Your task to perform on an android device: Open notification settings Image 0: 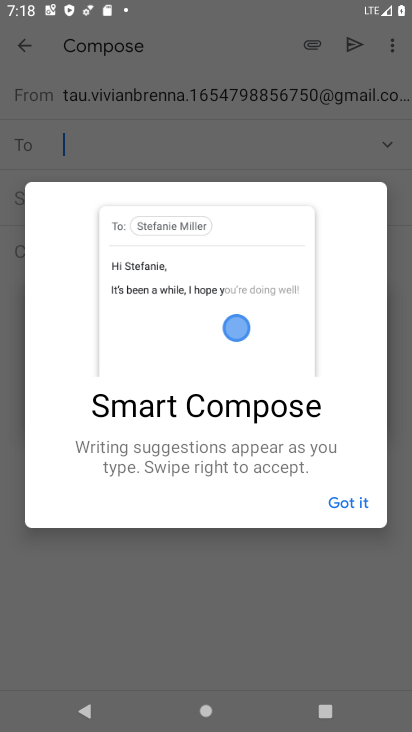
Step 0: press home button
Your task to perform on an android device: Open notification settings Image 1: 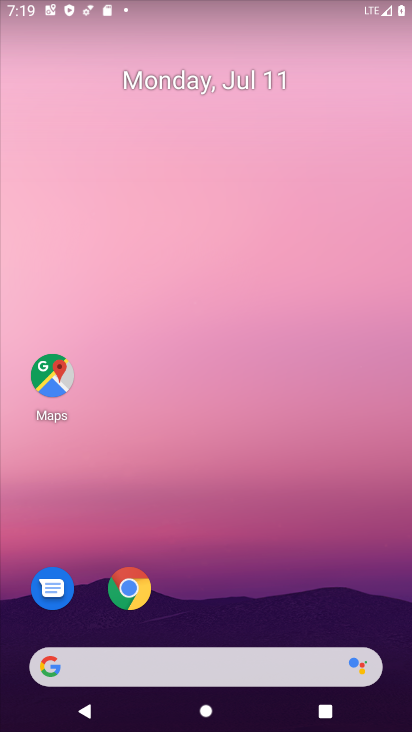
Step 1: drag from (376, 612) to (236, 48)
Your task to perform on an android device: Open notification settings Image 2: 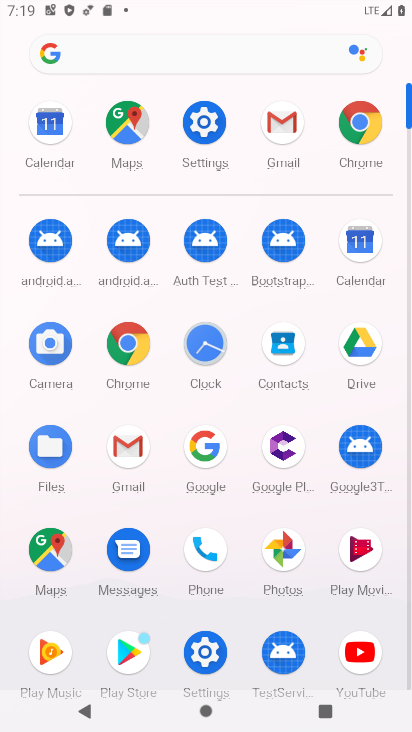
Step 2: click (211, 123)
Your task to perform on an android device: Open notification settings Image 3: 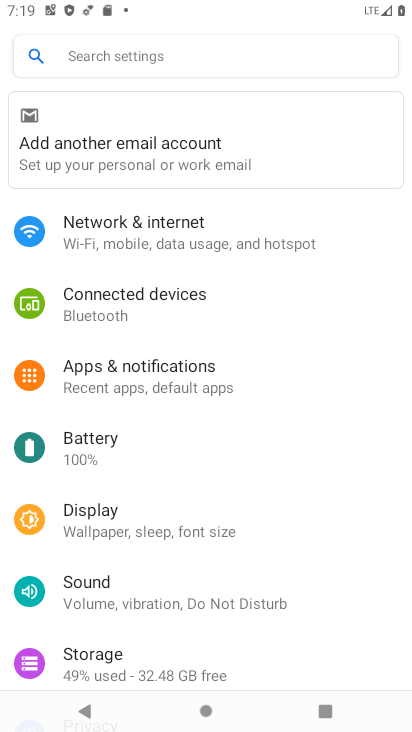
Step 3: click (105, 381)
Your task to perform on an android device: Open notification settings Image 4: 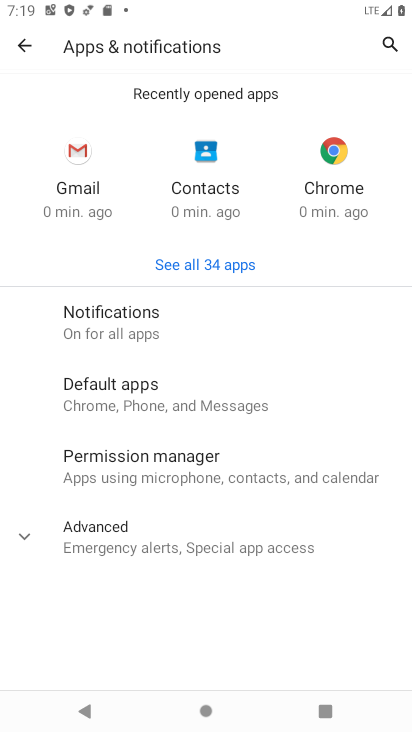
Step 4: click (121, 323)
Your task to perform on an android device: Open notification settings Image 5: 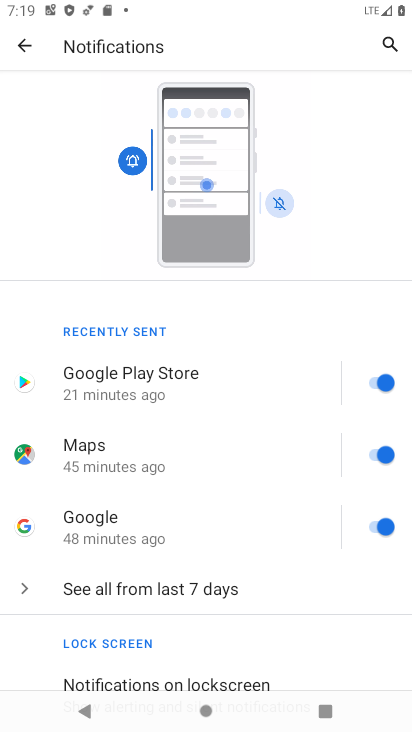
Step 5: task complete